Your task to perform on an android device: turn on showing notifications on the lock screen Image 0: 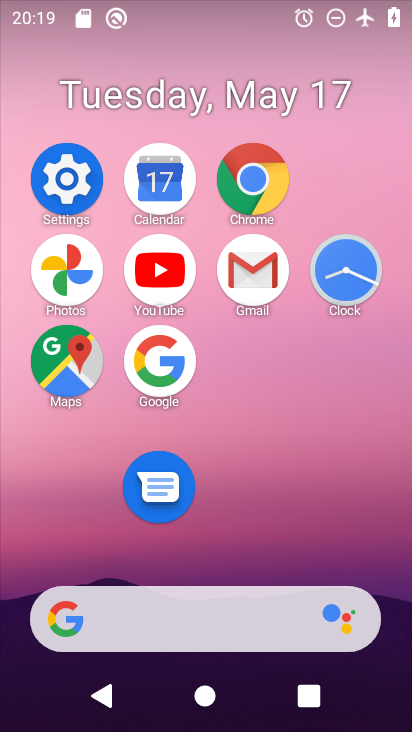
Step 0: click (80, 190)
Your task to perform on an android device: turn on showing notifications on the lock screen Image 1: 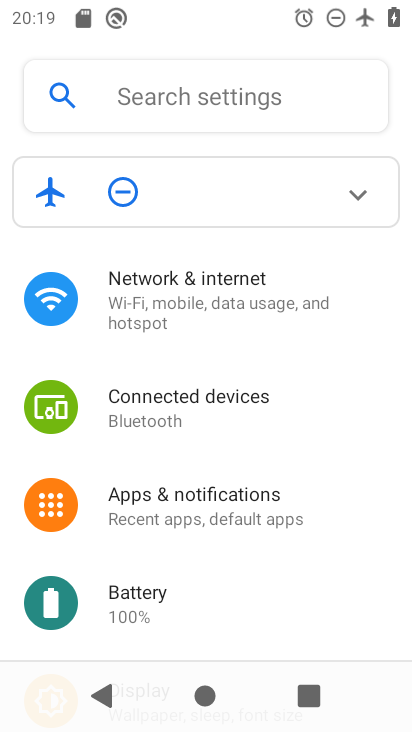
Step 1: click (307, 515)
Your task to perform on an android device: turn on showing notifications on the lock screen Image 2: 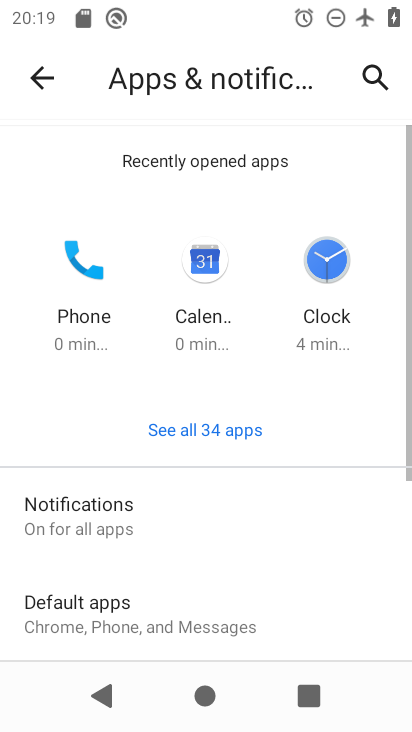
Step 2: click (104, 534)
Your task to perform on an android device: turn on showing notifications on the lock screen Image 3: 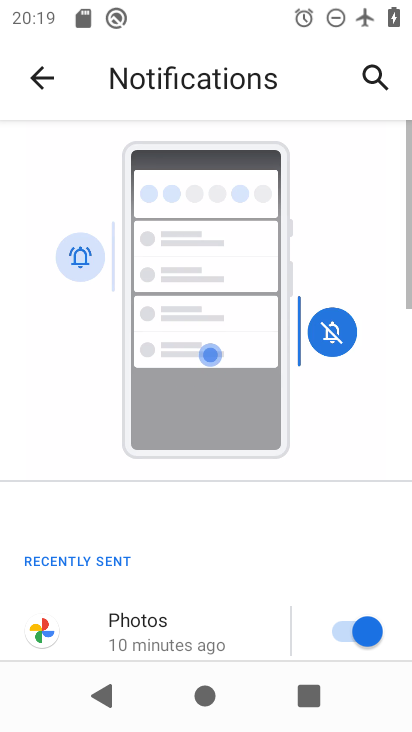
Step 3: drag from (204, 575) to (179, 147)
Your task to perform on an android device: turn on showing notifications on the lock screen Image 4: 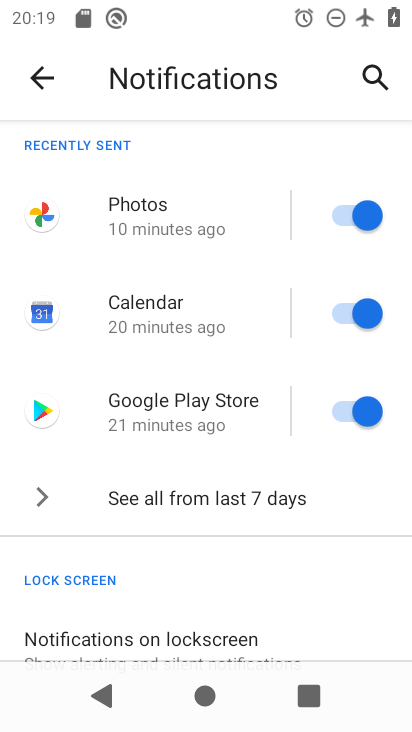
Step 4: drag from (185, 624) to (198, 243)
Your task to perform on an android device: turn on showing notifications on the lock screen Image 5: 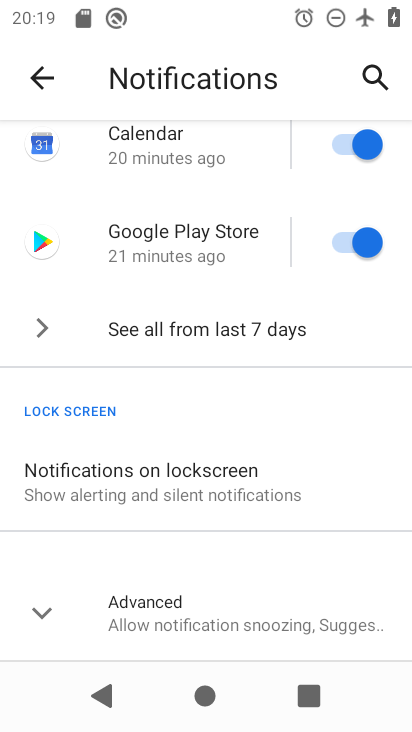
Step 5: click (209, 511)
Your task to perform on an android device: turn on showing notifications on the lock screen Image 6: 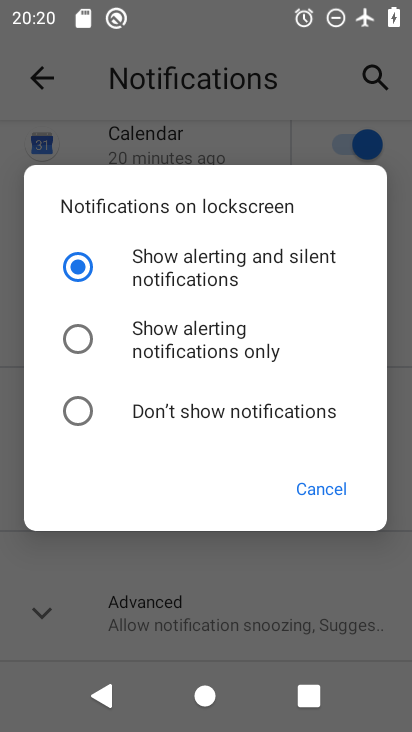
Step 6: task complete